Your task to perform on an android device: Open Chrome and go to settings Image 0: 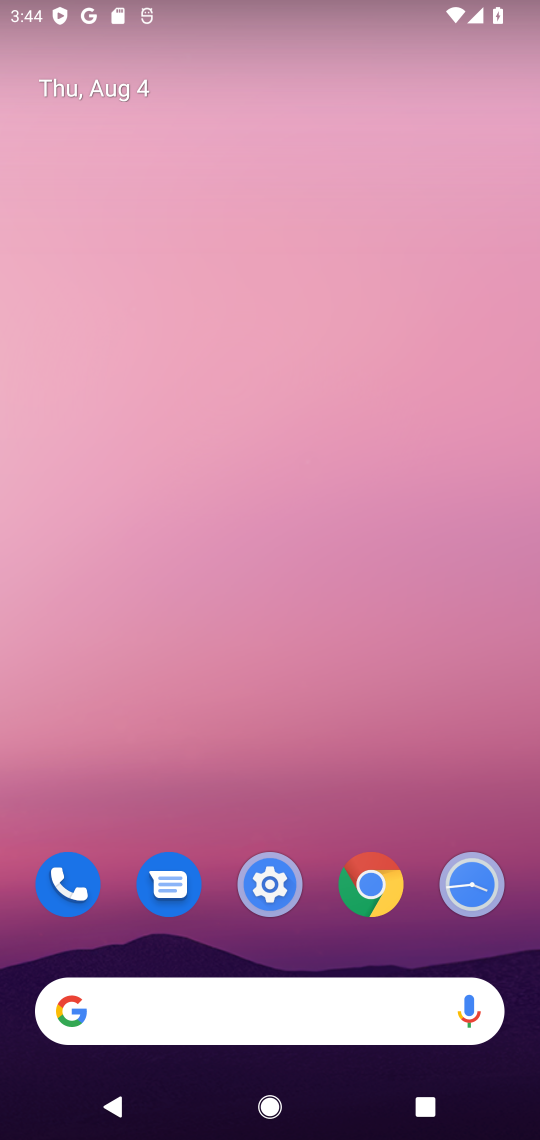
Step 0: drag from (204, 952) to (281, 80)
Your task to perform on an android device: Open Chrome and go to settings Image 1: 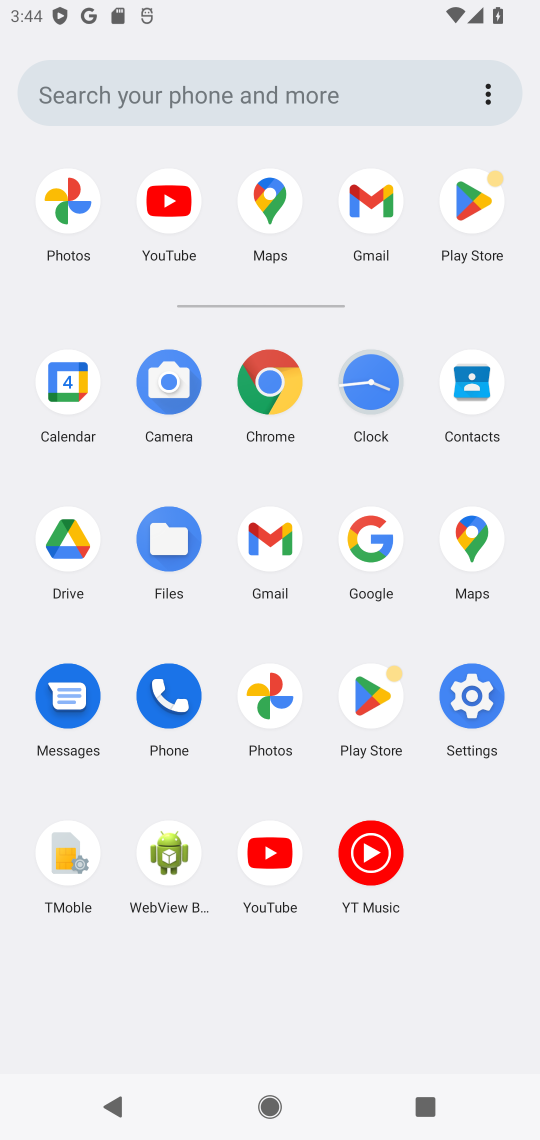
Step 1: click (263, 365)
Your task to perform on an android device: Open Chrome and go to settings Image 2: 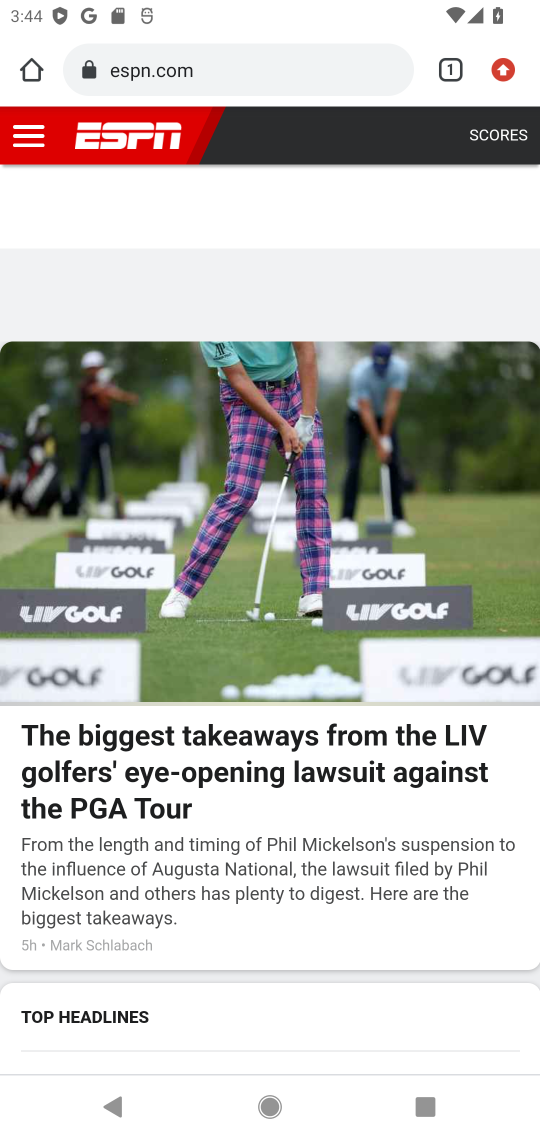
Step 2: task complete